Your task to perform on an android device: change alarm snooze length Image 0: 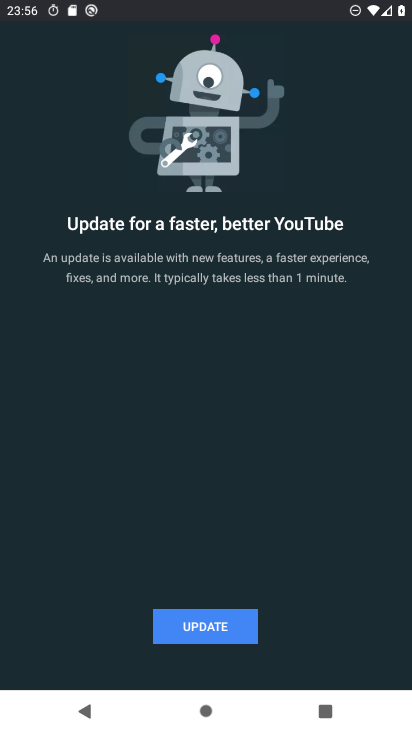
Step 0: press home button
Your task to perform on an android device: change alarm snooze length Image 1: 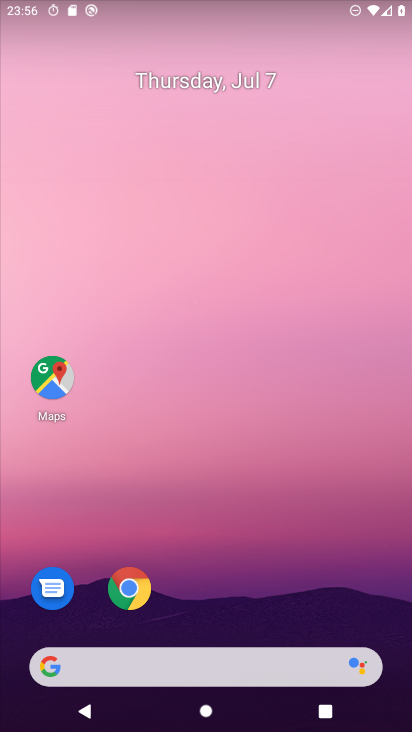
Step 1: drag from (317, 614) to (373, 54)
Your task to perform on an android device: change alarm snooze length Image 2: 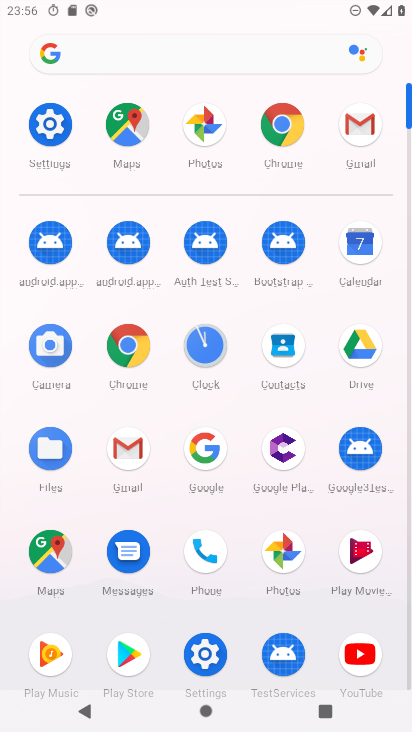
Step 2: click (209, 334)
Your task to perform on an android device: change alarm snooze length Image 3: 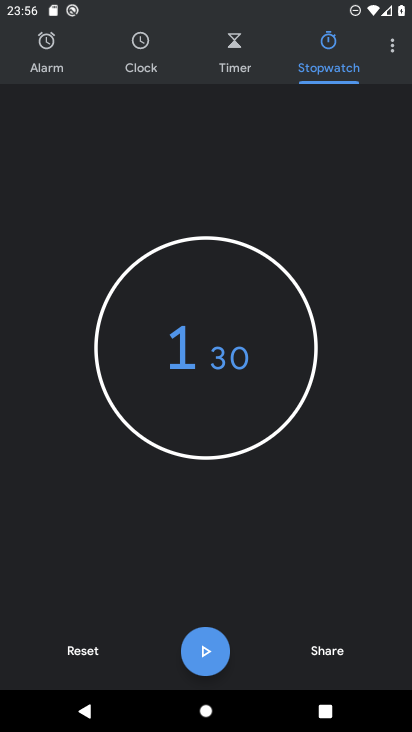
Step 3: click (390, 48)
Your task to perform on an android device: change alarm snooze length Image 4: 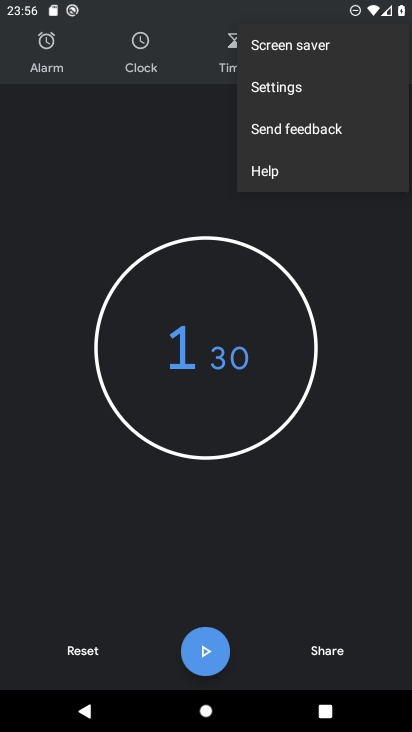
Step 4: click (291, 96)
Your task to perform on an android device: change alarm snooze length Image 5: 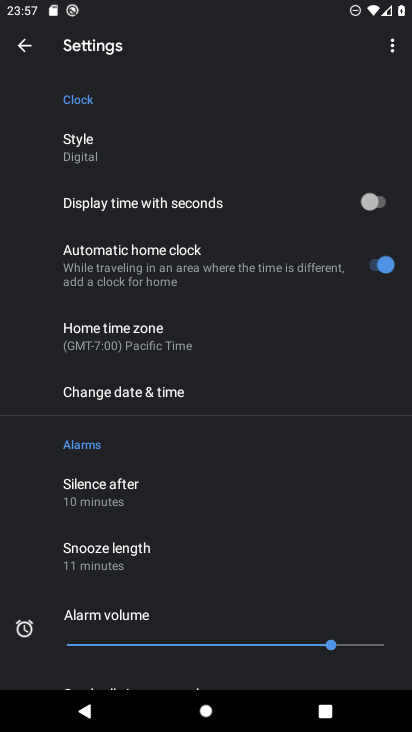
Step 5: click (129, 551)
Your task to perform on an android device: change alarm snooze length Image 6: 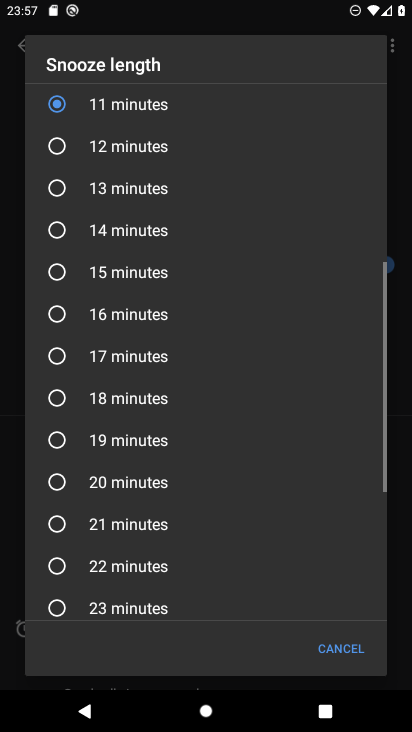
Step 6: click (131, 139)
Your task to perform on an android device: change alarm snooze length Image 7: 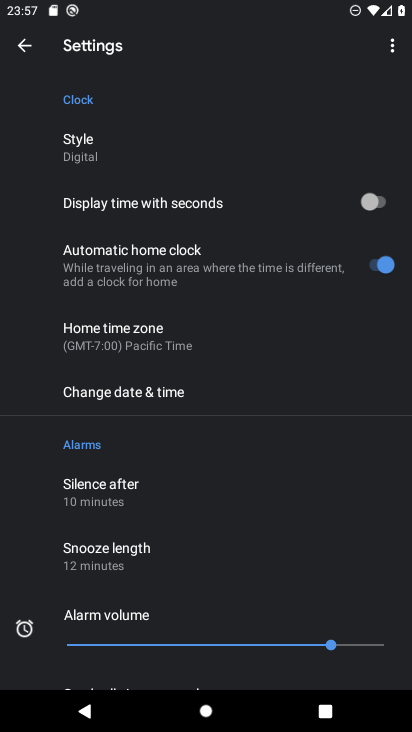
Step 7: task complete